Your task to perform on an android device: change text size in settings app Image 0: 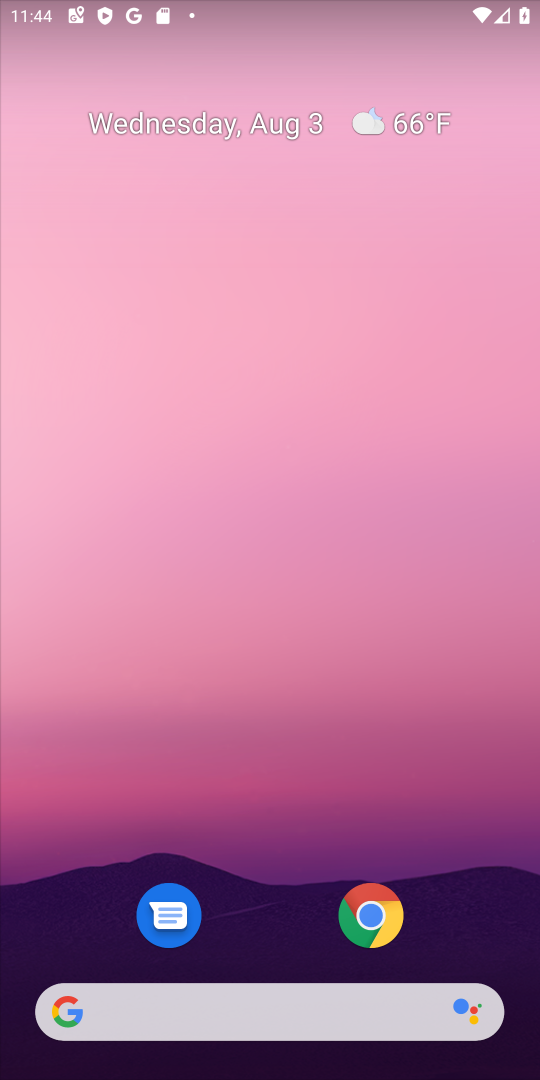
Step 0: press home button
Your task to perform on an android device: change text size in settings app Image 1: 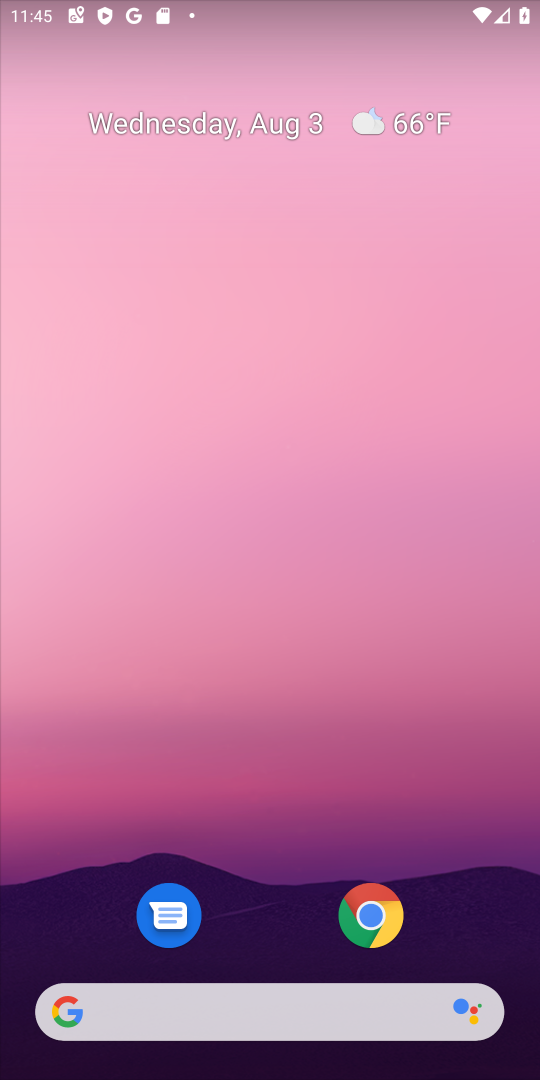
Step 1: drag from (263, 970) to (185, 35)
Your task to perform on an android device: change text size in settings app Image 2: 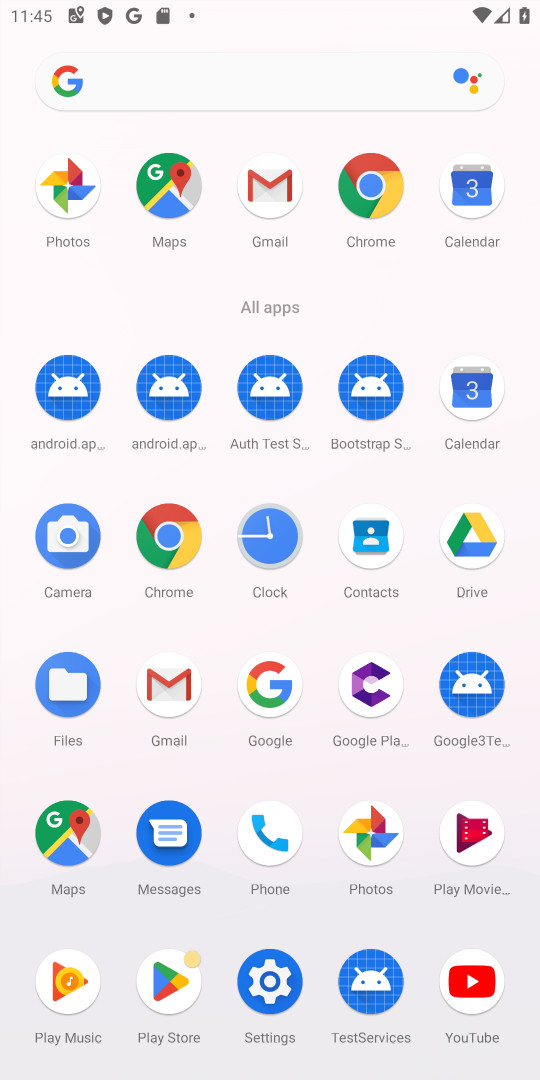
Step 2: click (292, 964)
Your task to perform on an android device: change text size in settings app Image 3: 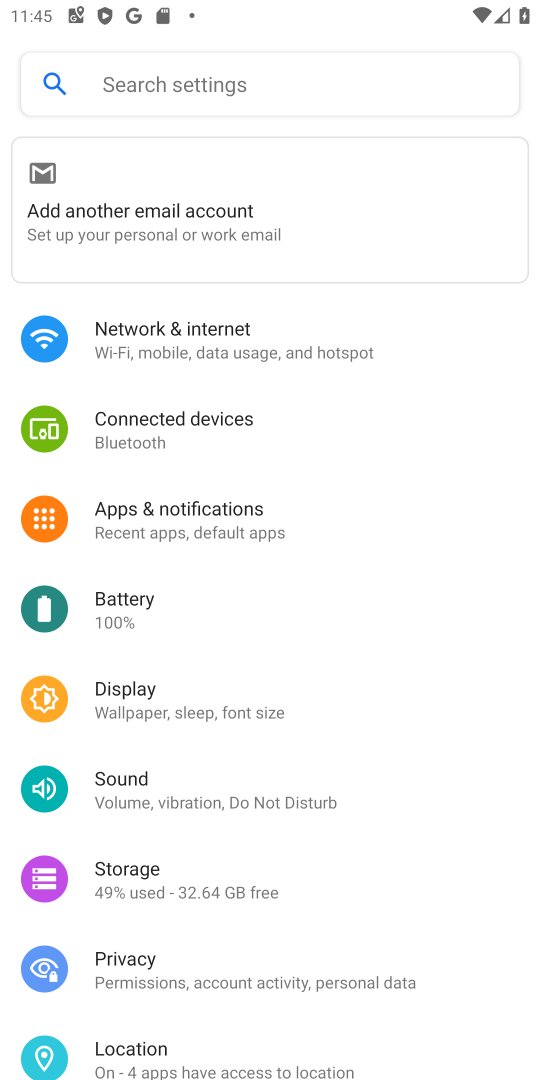
Step 3: click (182, 692)
Your task to perform on an android device: change text size in settings app Image 4: 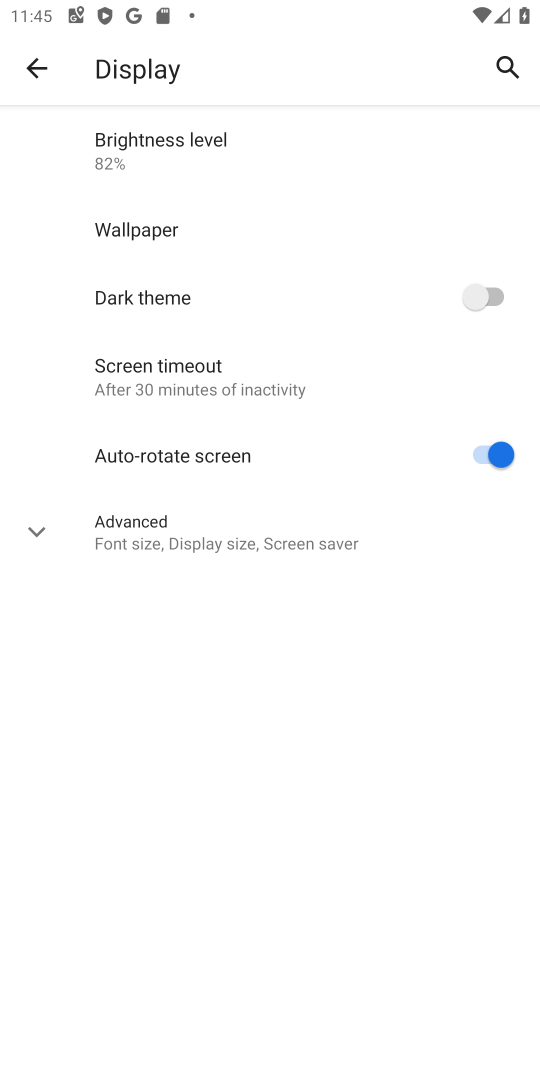
Step 4: click (116, 525)
Your task to perform on an android device: change text size in settings app Image 5: 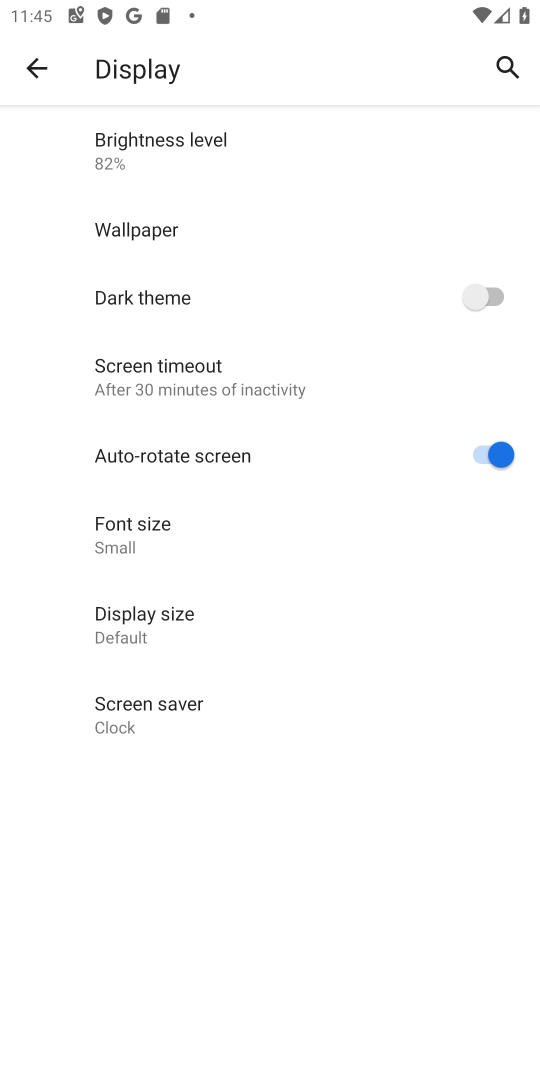
Step 5: click (116, 525)
Your task to perform on an android device: change text size in settings app Image 6: 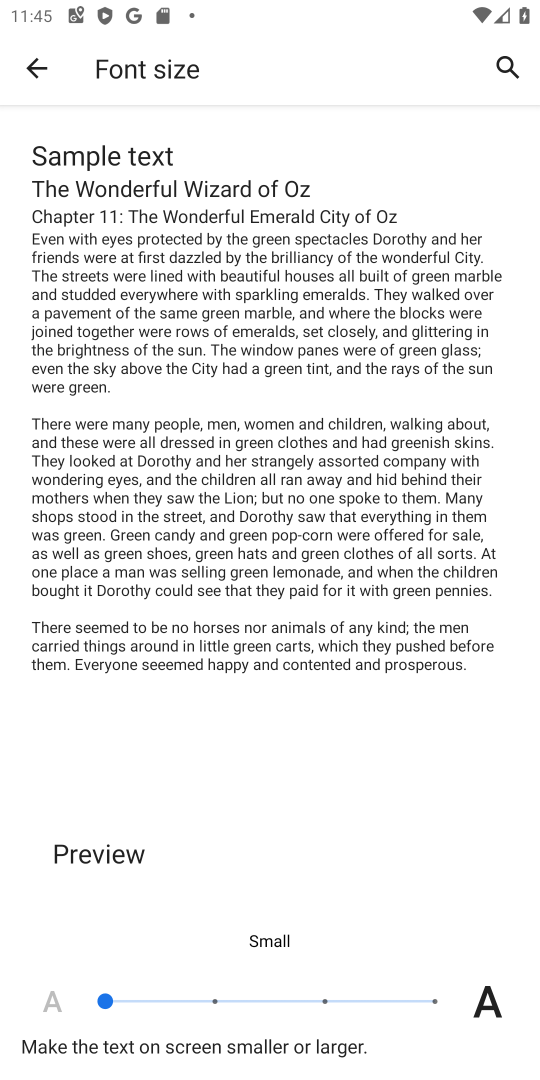
Step 6: click (505, 1002)
Your task to perform on an android device: change text size in settings app Image 7: 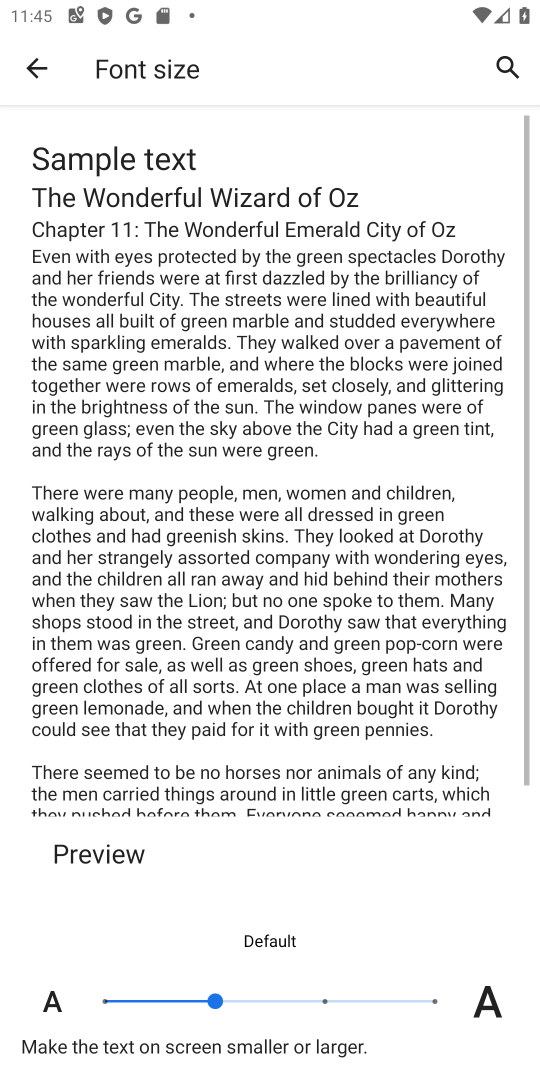
Step 7: click (505, 1002)
Your task to perform on an android device: change text size in settings app Image 8: 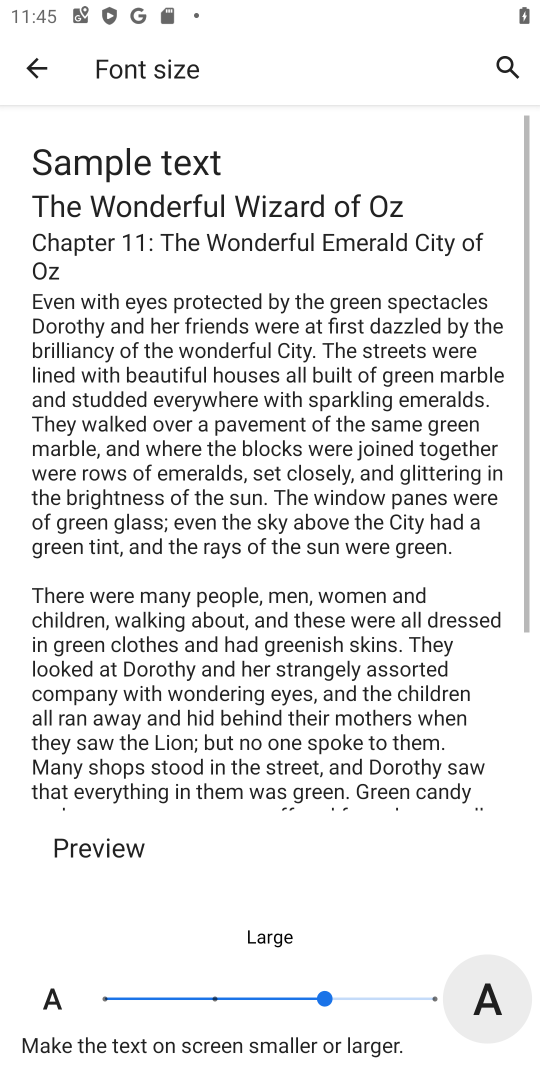
Step 8: task complete